Your task to perform on an android device: see tabs open on other devices in the chrome app Image 0: 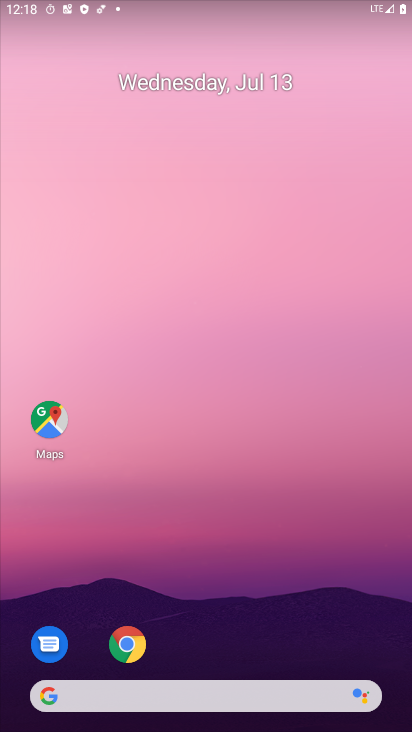
Step 0: click (130, 643)
Your task to perform on an android device: see tabs open on other devices in the chrome app Image 1: 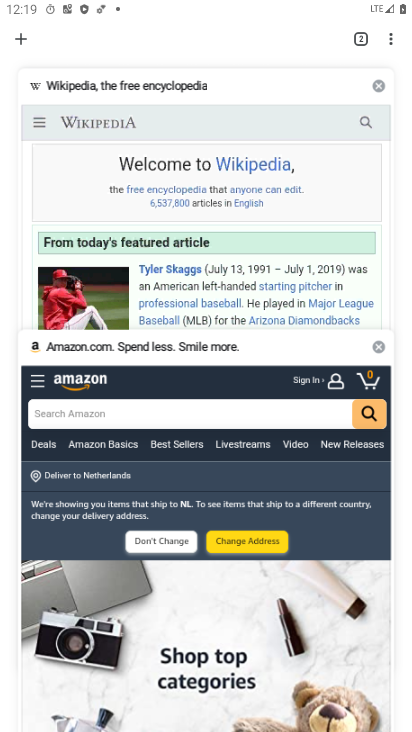
Step 1: task complete